Your task to perform on an android device: Search for the most popular books on Goodreads Image 0: 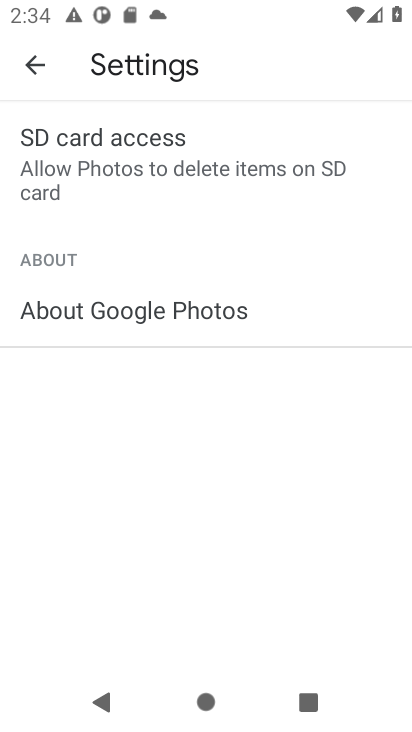
Step 0: press home button
Your task to perform on an android device: Search for the most popular books on Goodreads Image 1: 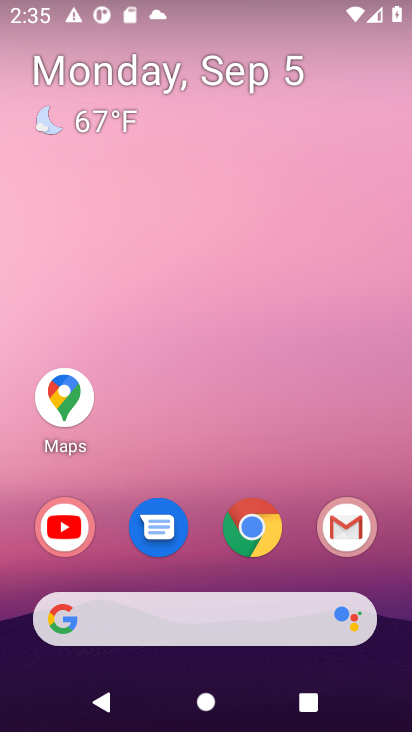
Step 1: click (245, 542)
Your task to perform on an android device: Search for the most popular books on Goodreads Image 2: 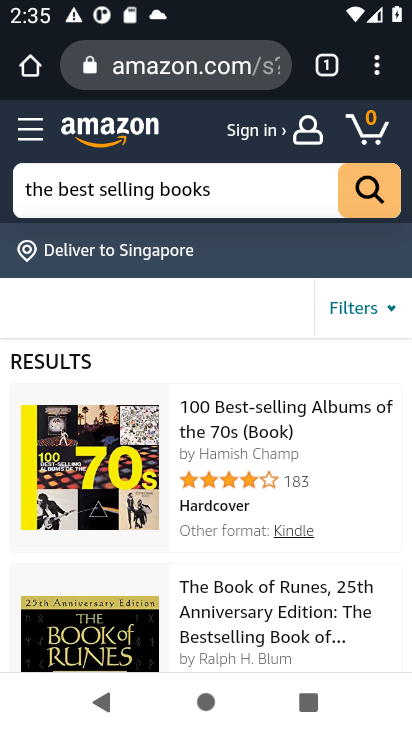
Step 2: click (191, 53)
Your task to perform on an android device: Search for the most popular books on Goodreads Image 3: 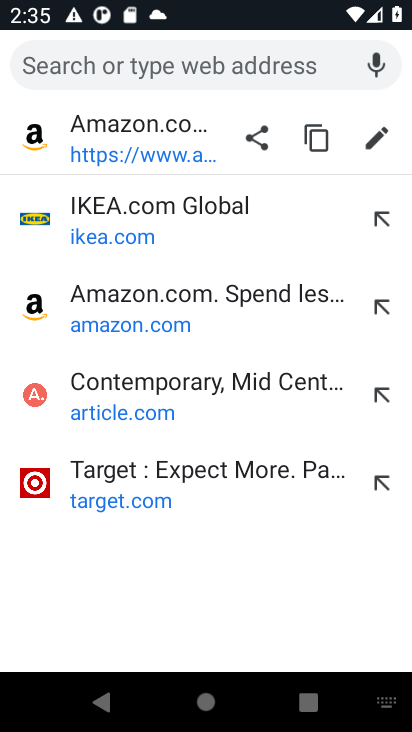
Step 3: type "good reads"
Your task to perform on an android device: Search for the most popular books on Goodreads Image 4: 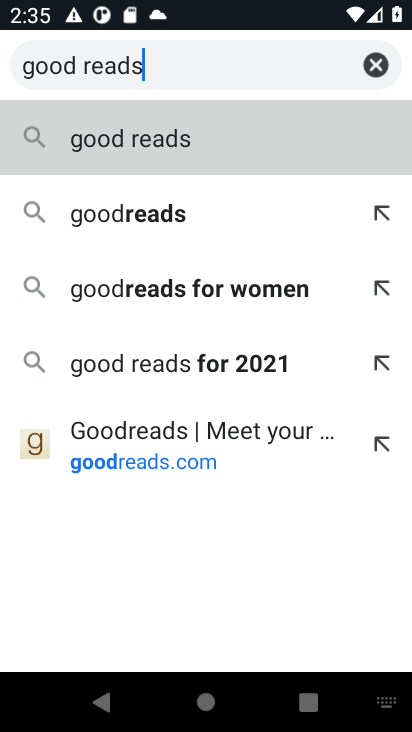
Step 4: click (133, 225)
Your task to perform on an android device: Search for the most popular books on Goodreads Image 5: 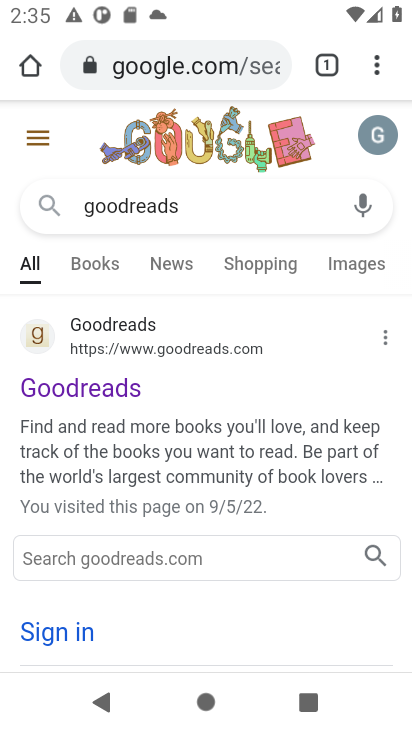
Step 5: click (60, 344)
Your task to perform on an android device: Search for the most popular books on Goodreads Image 6: 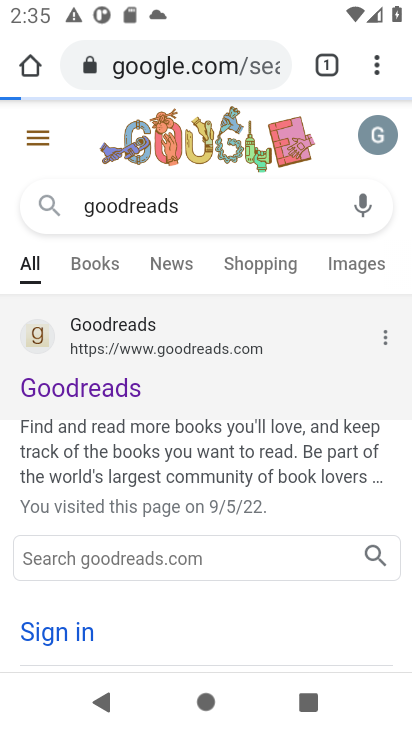
Step 6: click (84, 401)
Your task to perform on an android device: Search for the most popular books on Goodreads Image 7: 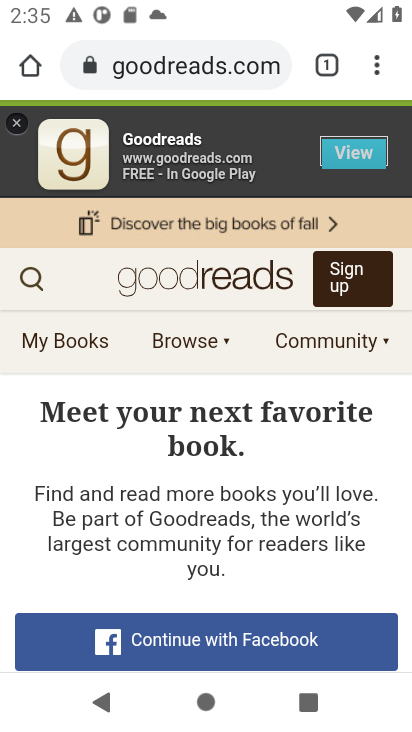
Step 7: click (32, 286)
Your task to perform on an android device: Search for the most popular books on Goodreads Image 8: 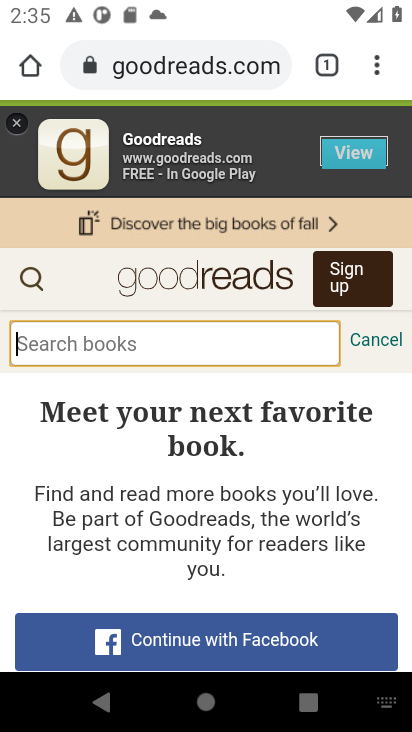
Step 8: type "the most popular books"
Your task to perform on an android device: Search for the most popular books on Goodreads Image 9: 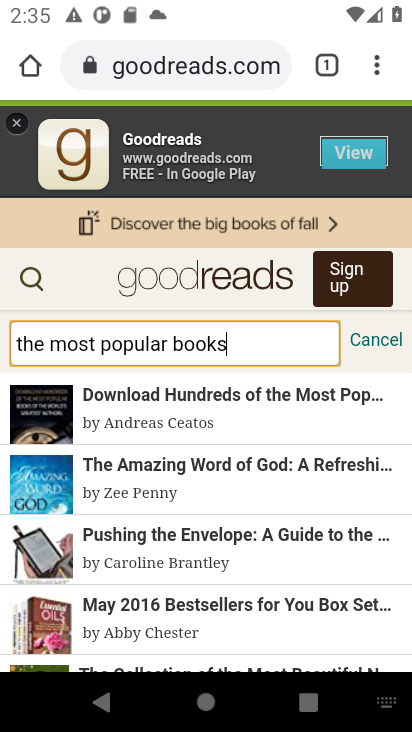
Step 9: task complete